Your task to perform on an android device: delete browsing data in the chrome app Image 0: 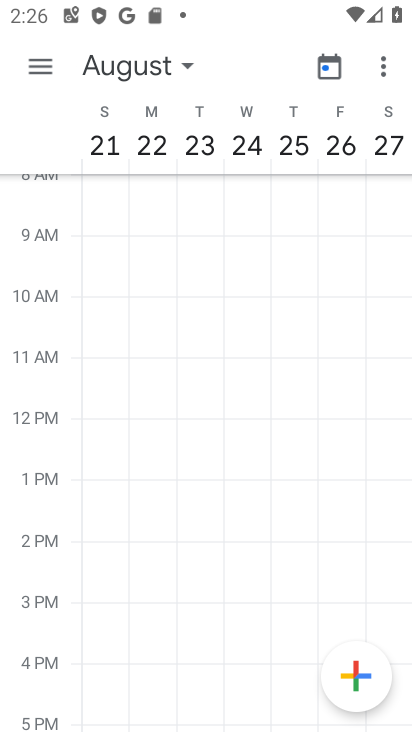
Step 0: press home button
Your task to perform on an android device: delete browsing data in the chrome app Image 1: 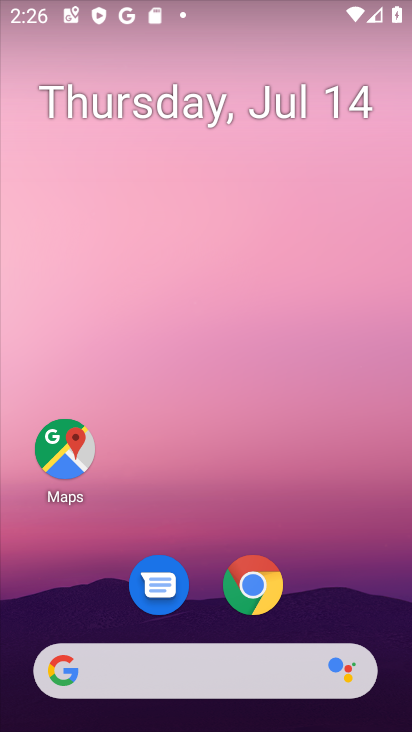
Step 1: click (263, 591)
Your task to perform on an android device: delete browsing data in the chrome app Image 2: 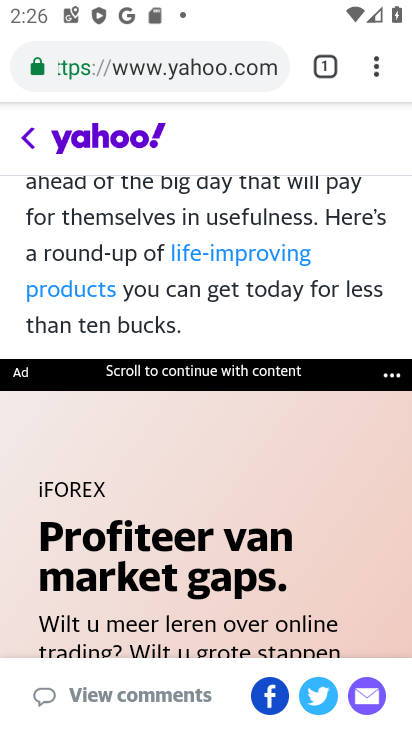
Step 2: click (374, 67)
Your task to perform on an android device: delete browsing data in the chrome app Image 3: 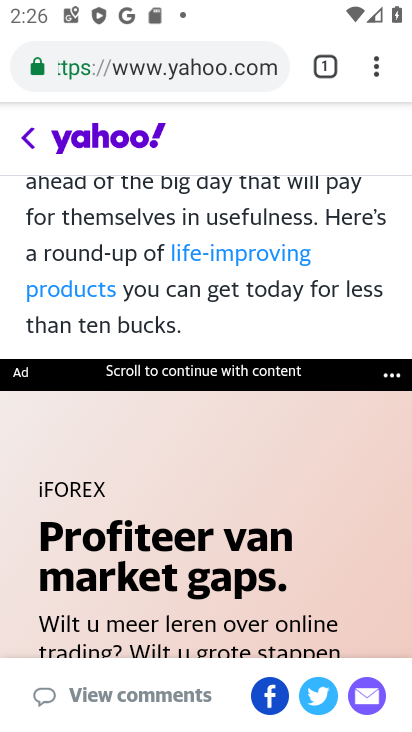
Step 3: click (374, 66)
Your task to perform on an android device: delete browsing data in the chrome app Image 4: 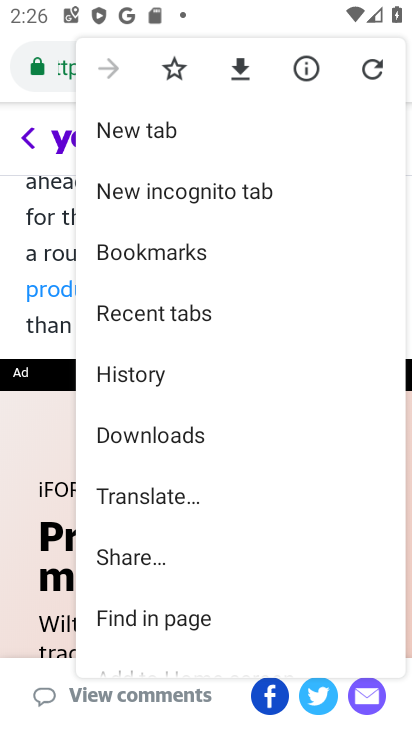
Step 4: click (152, 378)
Your task to perform on an android device: delete browsing data in the chrome app Image 5: 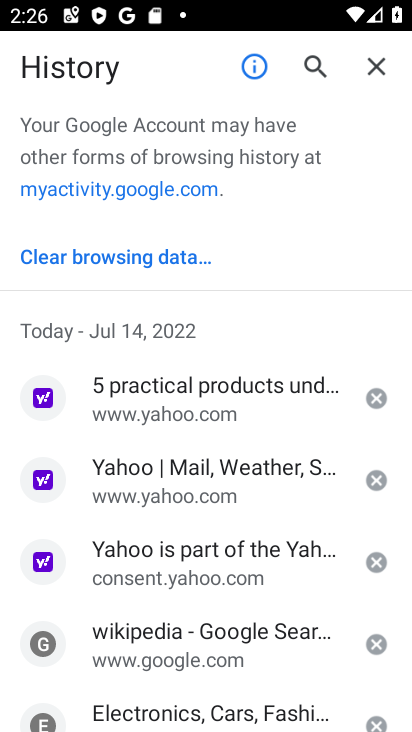
Step 5: click (152, 257)
Your task to perform on an android device: delete browsing data in the chrome app Image 6: 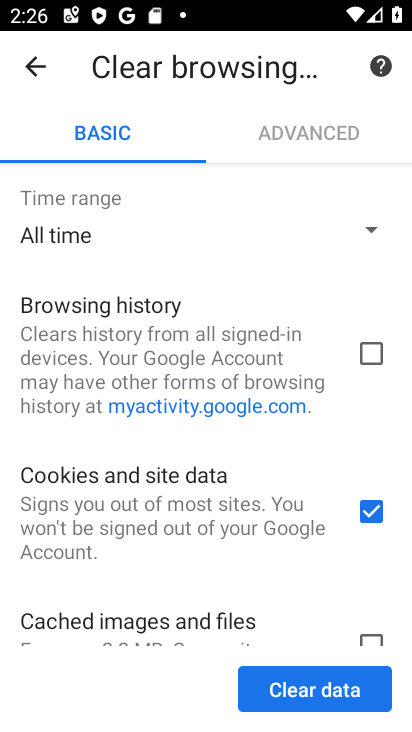
Step 6: click (369, 338)
Your task to perform on an android device: delete browsing data in the chrome app Image 7: 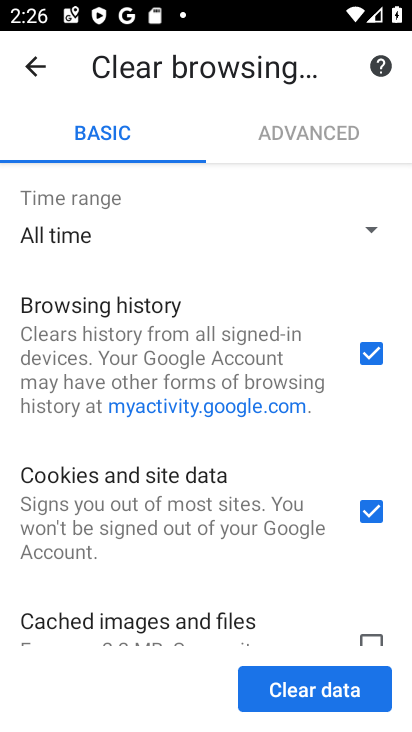
Step 7: click (373, 637)
Your task to perform on an android device: delete browsing data in the chrome app Image 8: 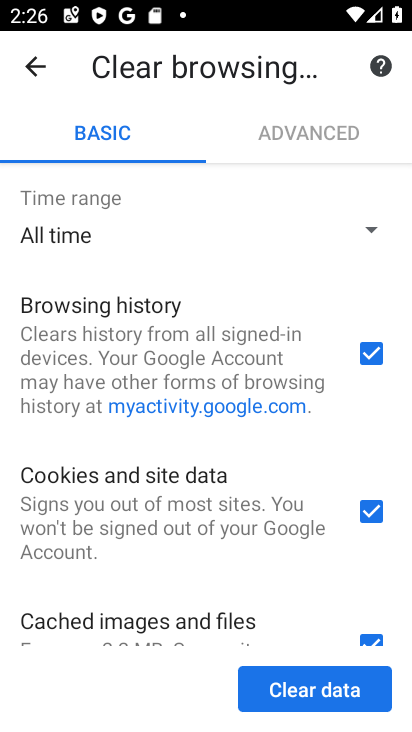
Step 8: click (354, 691)
Your task to perform on an android device: delete browsing data in the chrome app Image 9: 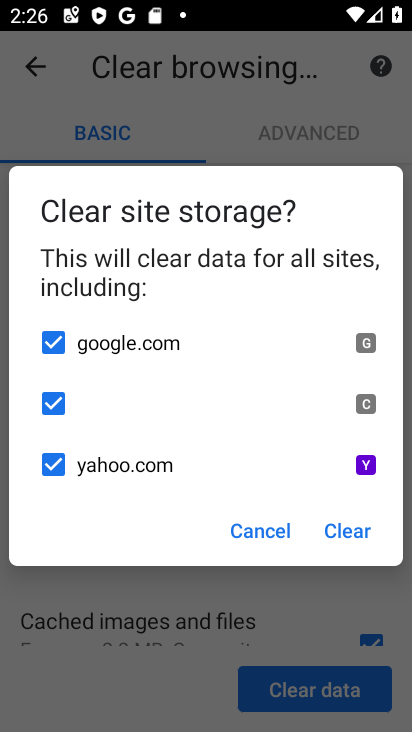
Step 9: click (361, 529)
Your task to perform on an android device: delete browsing data in the chrome app Image 10: 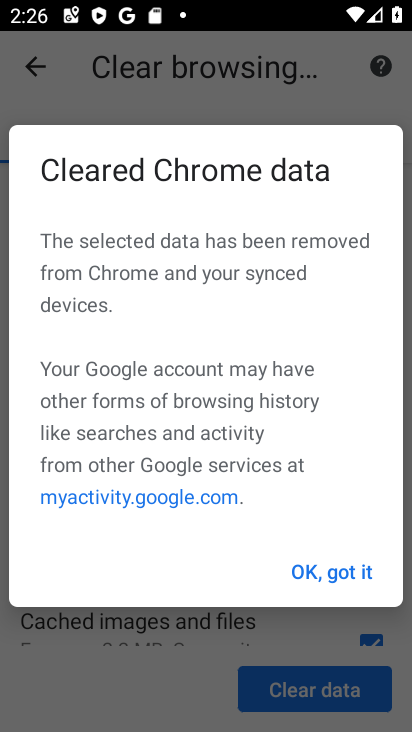
Step 10: click (351, 574)
Your task to perform on an android device: delete browsing data in the chrome app Image 11: 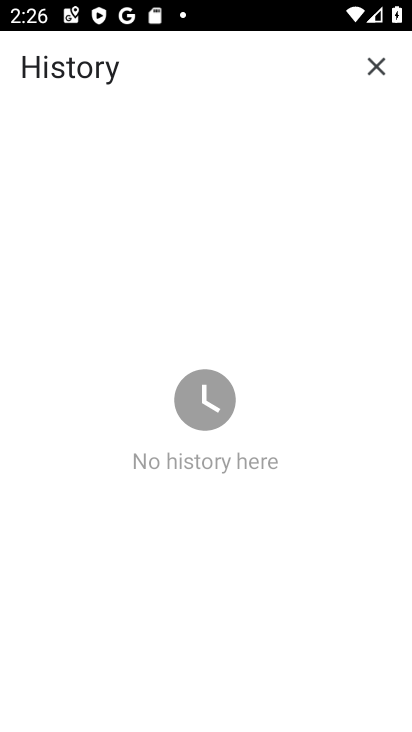
Step 11: task complete